Your task to perform on an android device: open a new tab in the chrome app Image 0: 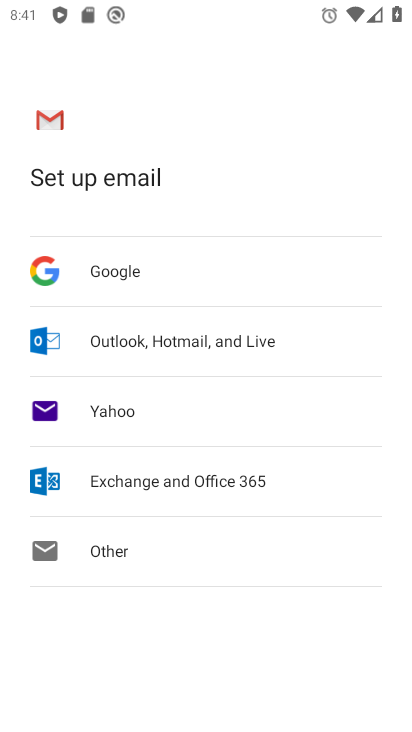
Step 0: press home button
Your task to perform on an android device: open a new tab in the chrome app Image 1: 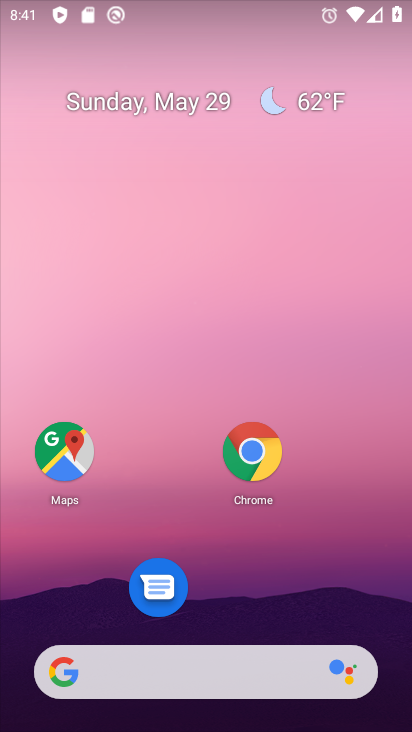
Step 1: click (257, 456)
Your task to perform on an android device: open a new tab in the chrome app Image 2: 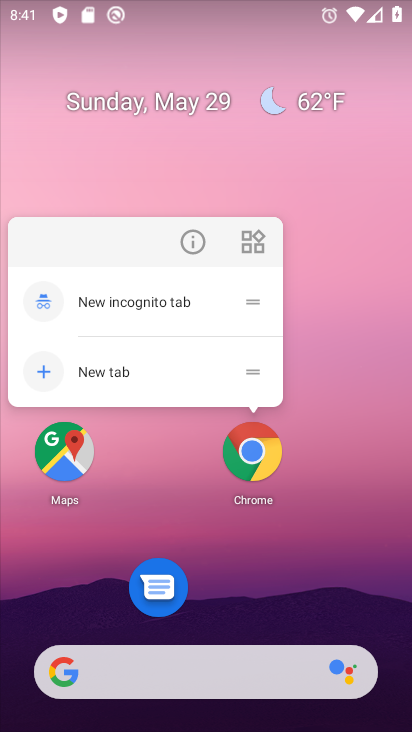
Step 2: click (174, 374)
Your task to perform on an android device: open a new tab in the chrome app Image 3: 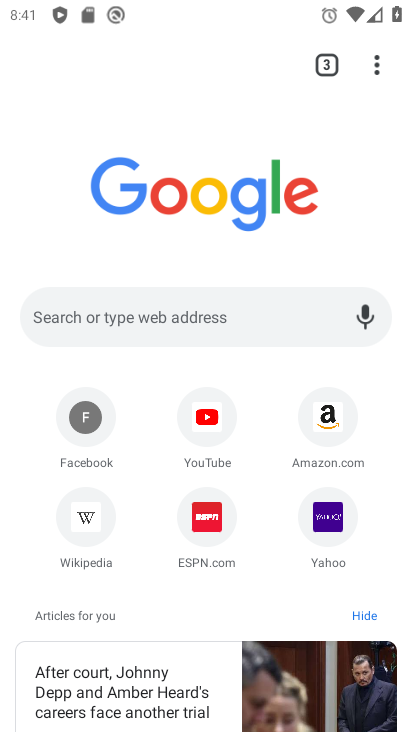
Step 3: task complete